Your task to perform on an android device: Toggle the flashlight Image 0: 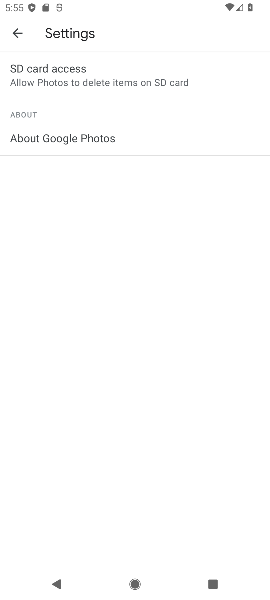
Step 0: press home button
Your task to perform on an android device: Toggle the flashlight Image 1: 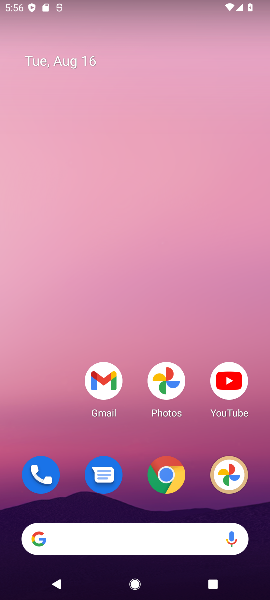
Step 1: drag from (204, 506) to (130, 37)
Your task to perform on an android device: Toggle the flashlight Image 2: 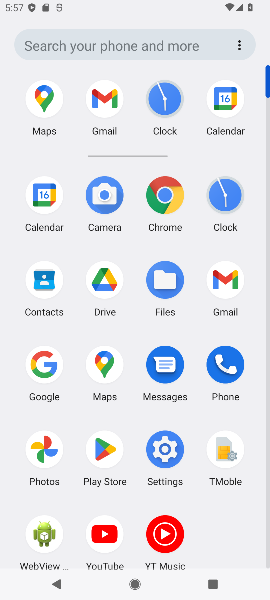
Step 2: click (175, 461)
Your task to perform on an android device: Toggle the flashlight Image 3: 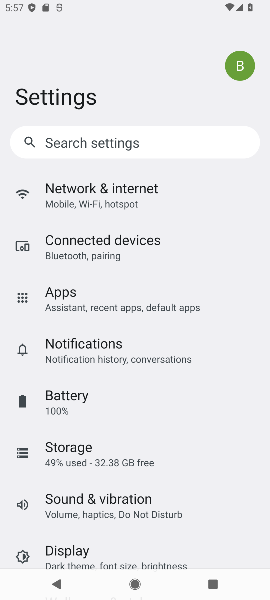
Step 3: task complete